Your task to perform on an android device: Open settings Image 0: 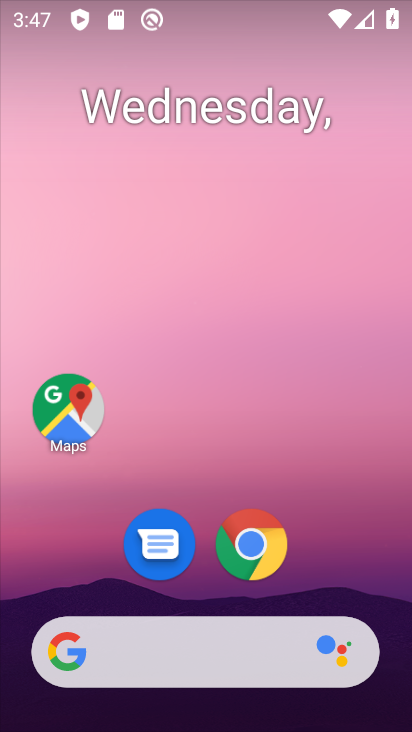
Step 0: drag from (178, 611) to (293, 291)
Your task to perform on an android device: Open settings Image 1: 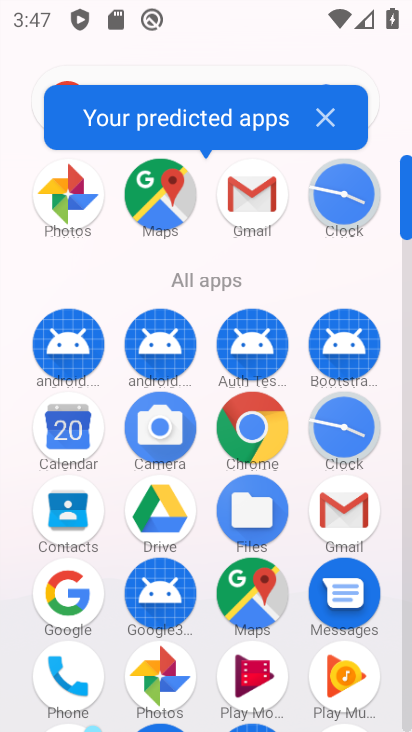
Step 1: drag from (205, 614) to (297, 233)
Your task to perform on an android device: Open settings Image 2: 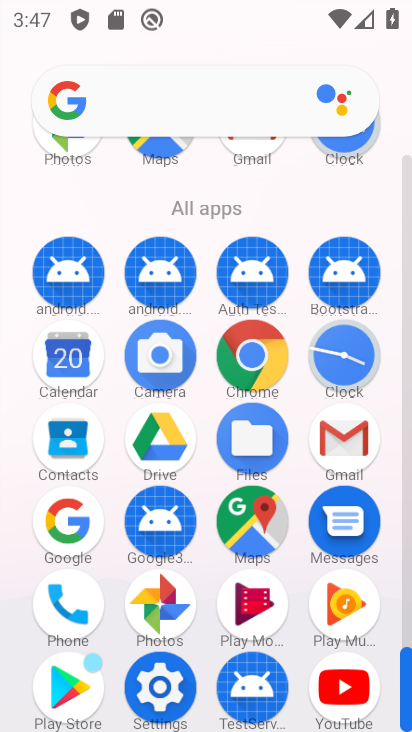
Step 2: click (161, 687)
Your task to perform on an android device: Open settings Image 3: 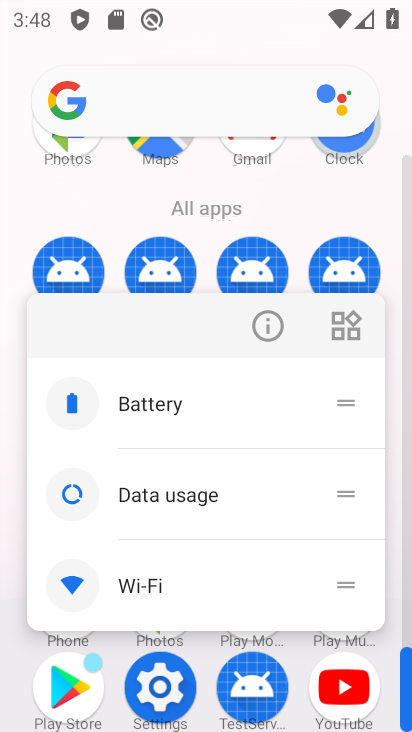
Step 3: click (155, 710)
Your task to perform on an android device: Open settings Image 4: 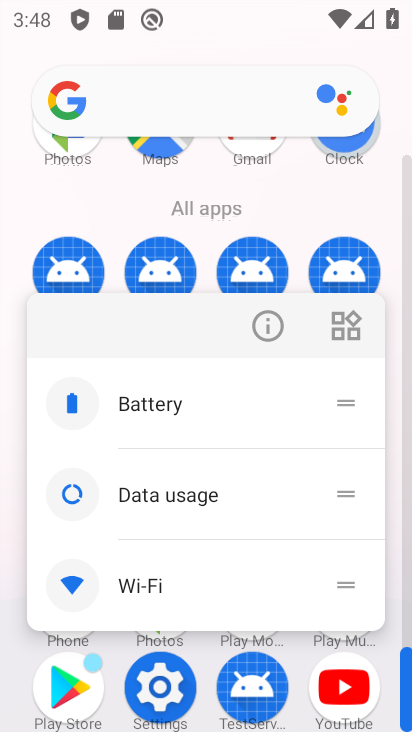
Step 4: click (164, 689)
Your task to perform on an android device: Open settings Image 5: 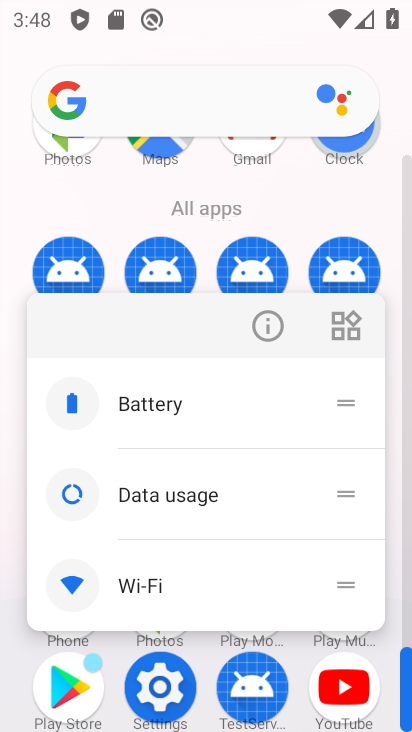
Step 5: click (155, 677)
Your task to perform on an android device: Open settings Image 6: 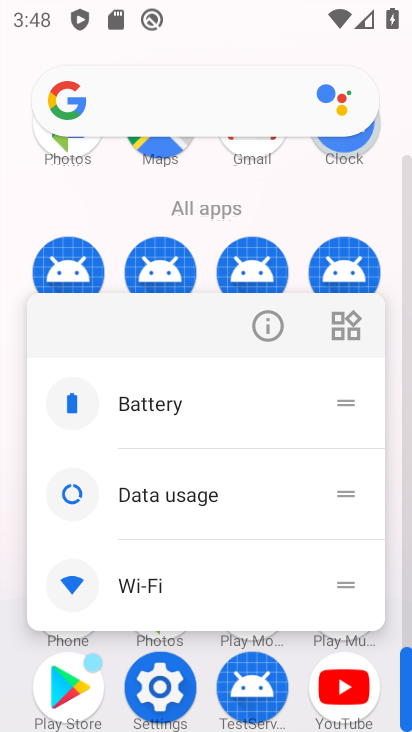
Step 6: click (155, 675)
Your task to perform on an android device: Open settings Image 7: 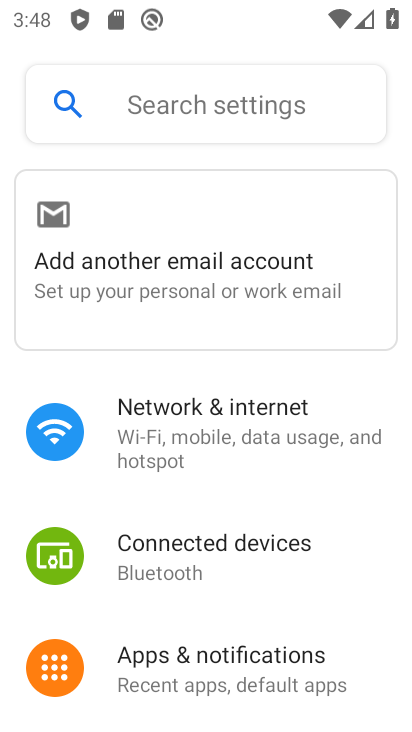
Step 7: task complete